Your task to perform on an android device: Turn on the flashlight Image 0: 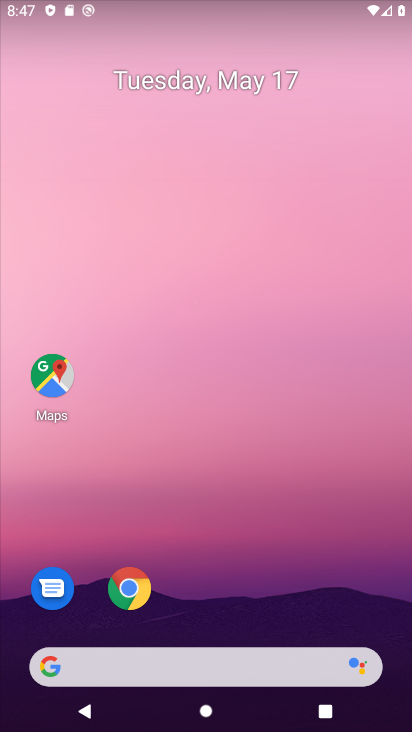
Step 0: drag from (378, 591) to (245, 120)
Your task to perform on an android device: Turn on the flashlight Image 1: 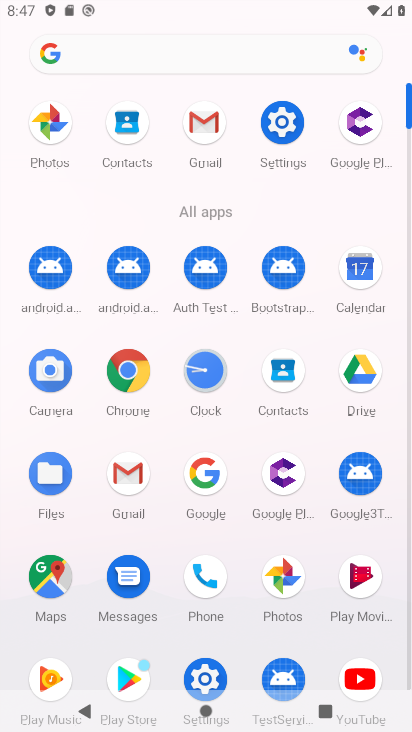
Step 1: click (209, 663)
Your task to perform on an android device: Turn on the flashlight Image 2: 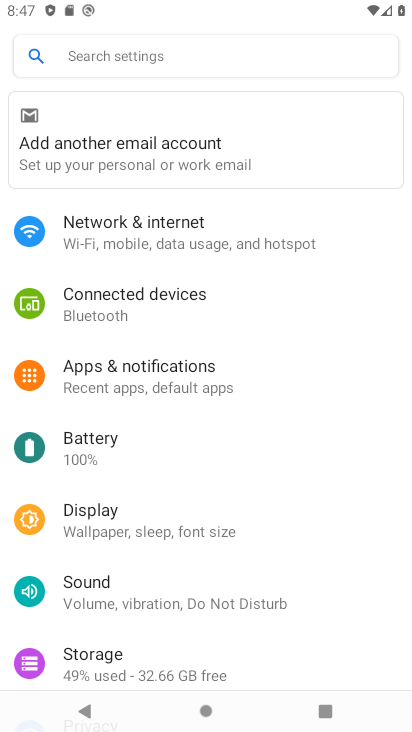
Step 2: click (116, 373)
Your task to perform on an android device: Turn on the flashlight Image 3: 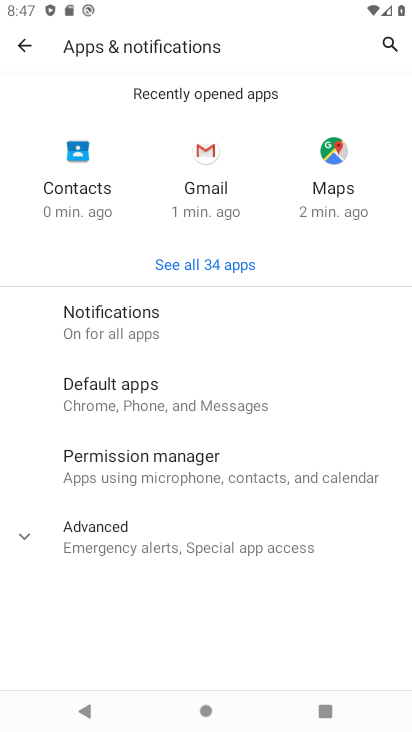
Step 3: task complete